Your task to perform on an android device: Search for Italian restaurants on Maps Image 0: 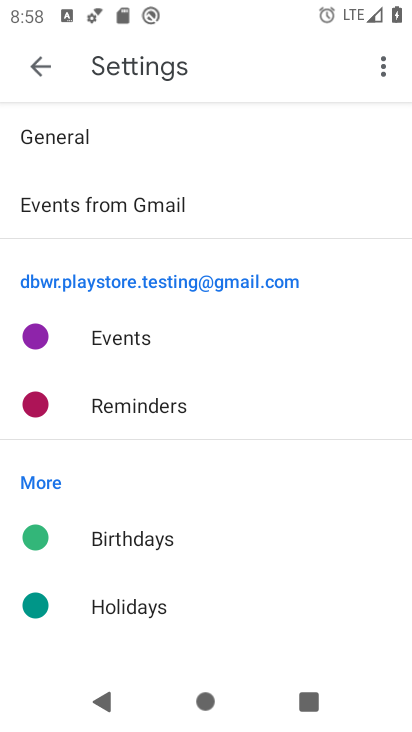
Step 0: press home button
Your task to perform on an android device: Search for Italian restaurants on Maps Image 1: 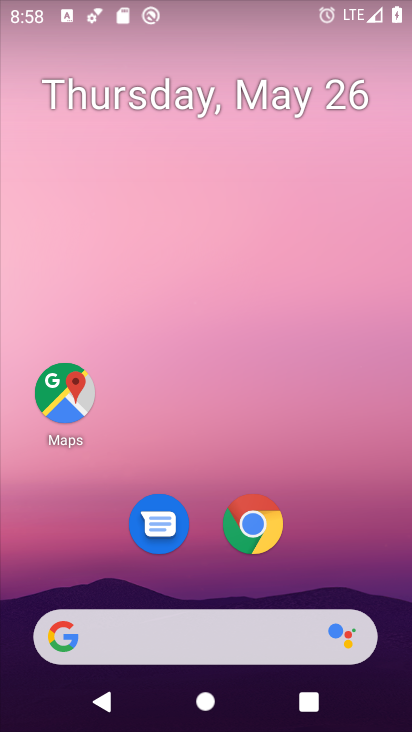
Step 1: click (69, 391)
Your task to perform on an android device: Search for Italian restaurants on Maps Image 2: 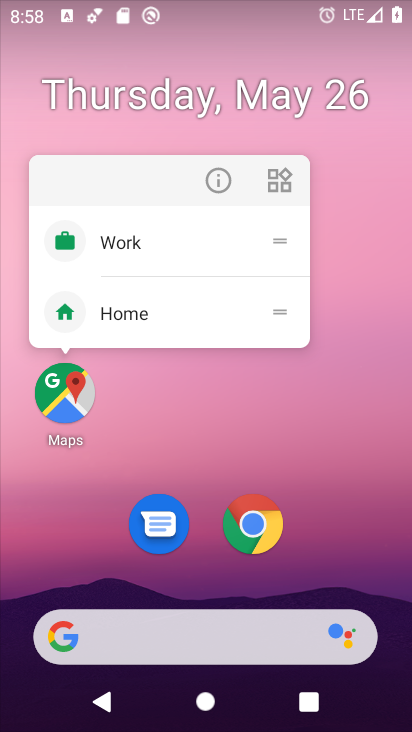
Step 2: click (69, 393)
Your task to perform on an android device: Search for Italian restaurants on Maps Image 3: 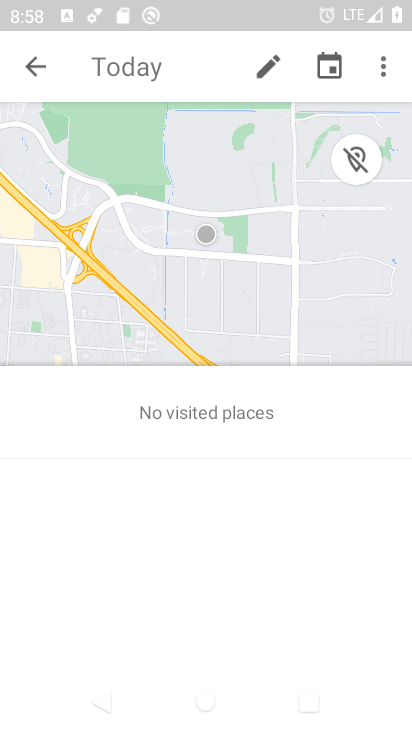
Step 3: click (23, 54)
Your task to perform on an android device: Search for Italian restaurants on Maps Image 4: 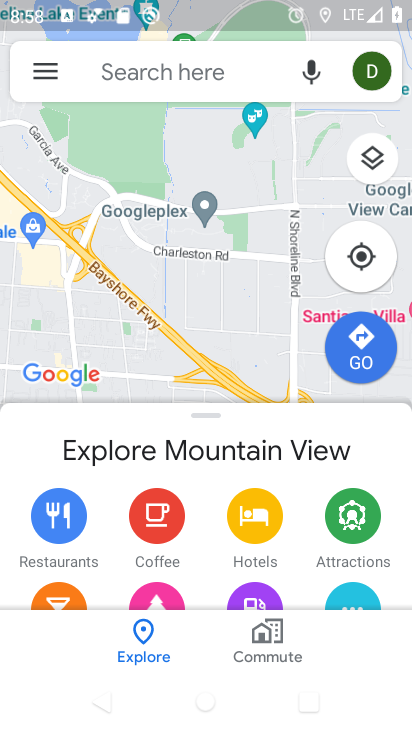
Step 4: click (145, 74)
Your task to perform on an android device: Search for Italian restaurants on Maps Image 5: 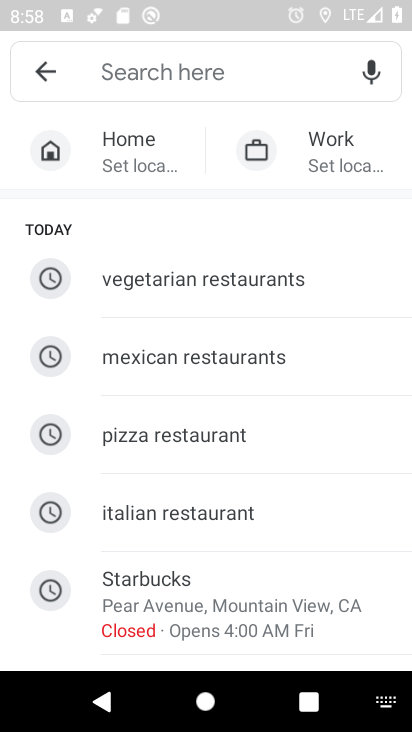
Step 5: click (246, 518)
Your task to perform on an android device: Search for Italian restaurants on Maps Image 6: 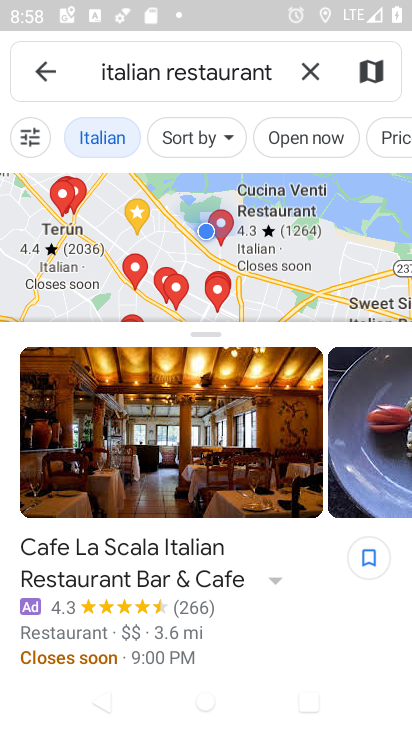
Step 6: task complete